Your task to perform on an android device: Do I have any events today? Image 0: 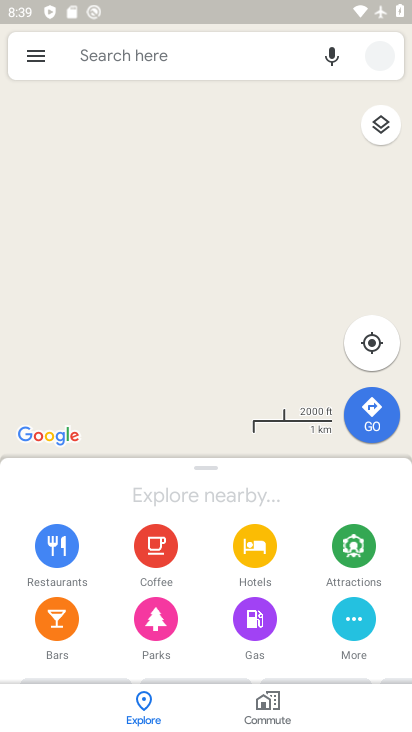
Step 0: press home button
Your task to perform on an android device: Do I have any events today? Image 1: 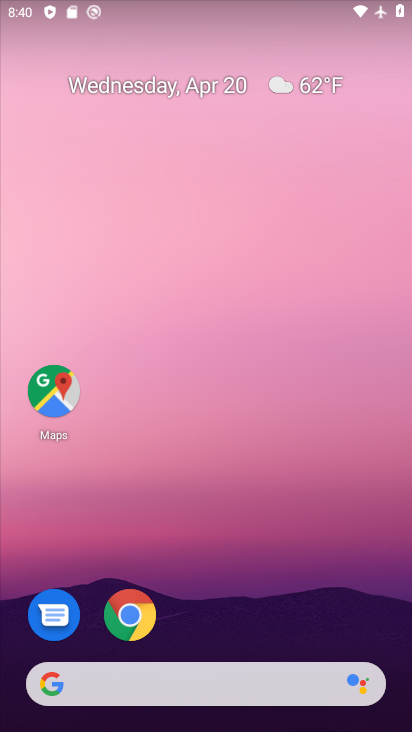
Step 1: drag from (182, 681) to (324, 90)
Your task to perform on an android device: Do I have any events today? Image 2: 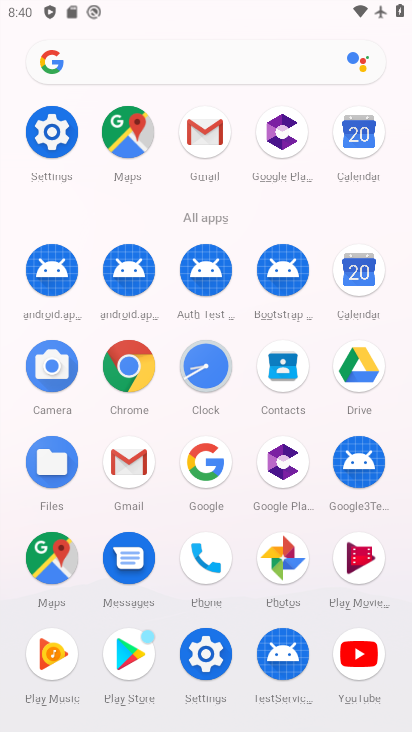
Step 2: click (360, 282)
Your task to perform on an android device: Do I have any events today? Image 3: 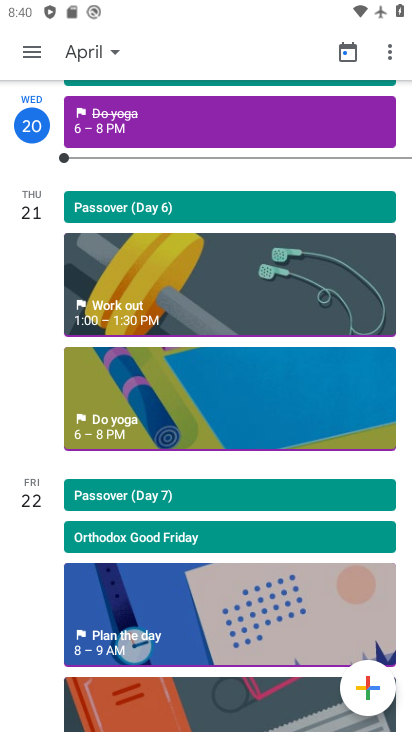
Step 3: click (86, 56)
Your task to perform on an android device: Do I have any events today? Image 4: 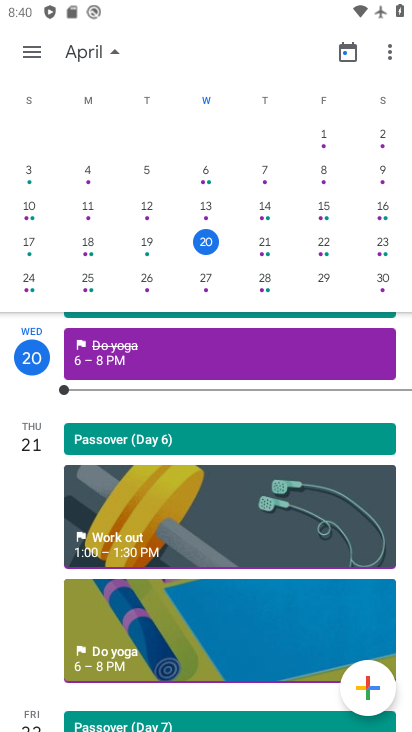
Step 4: click (29, 56)
Your task to perform on an android device: Do I have any events today? Image 5: 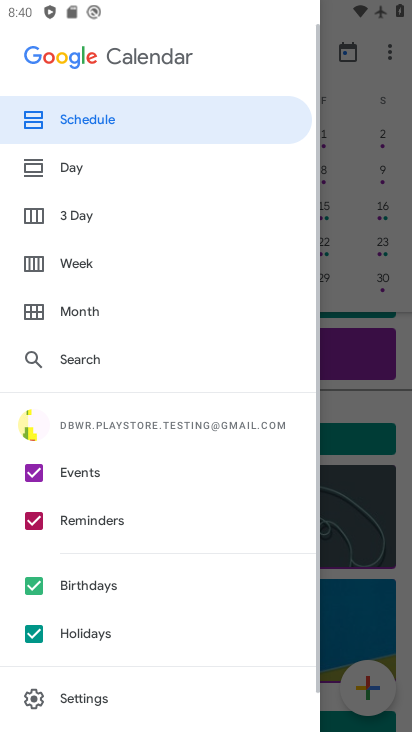
Step 5: click (68, 119)
Your task to perform on an android device: Do I have any events today? Image 6: 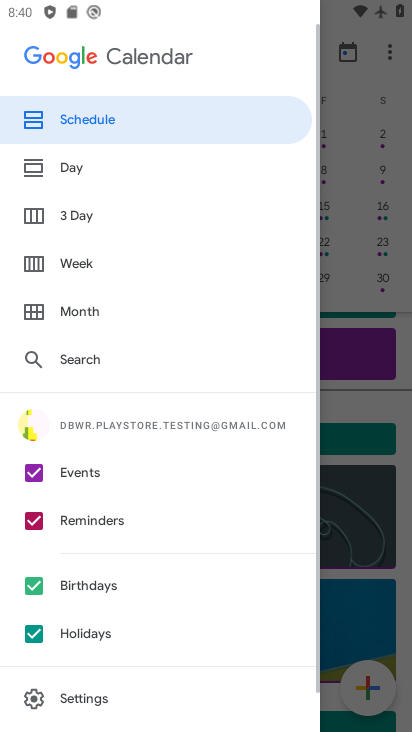
Step 6: click (65, 166)
Your task to perform on an android device: Do I have any events today? Image 7: 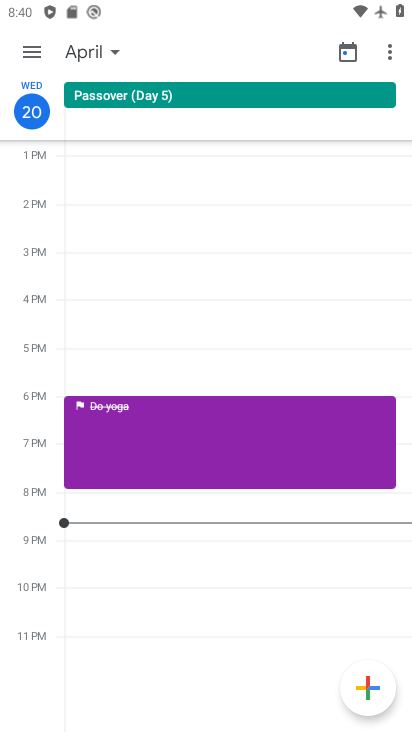
Step 7: click (127, 439)
Your task to perform on an android device: Do I have any events today? Image 8: 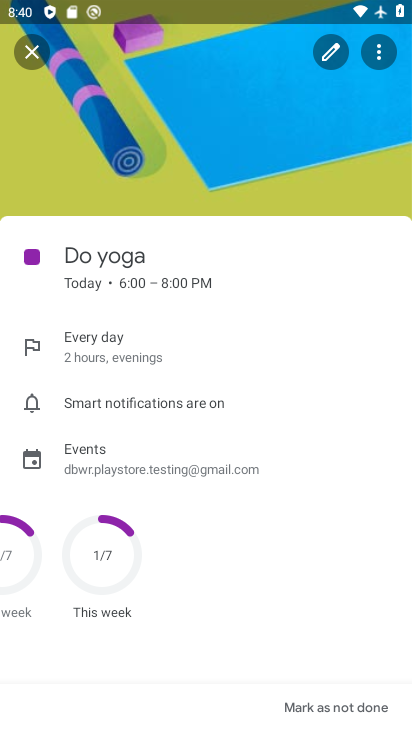
Step 8: task complete